Your task to perform on an android device: snooze an email in the gmail app Image 0: 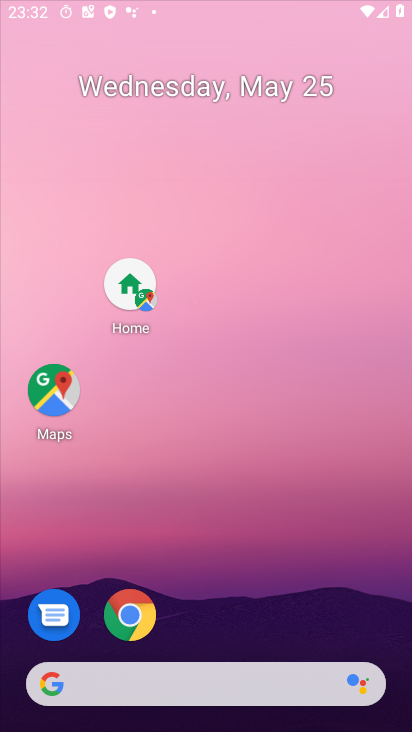
Step 0: press home button
Your task to perform on an android device: snooze an email in the gmail app Image 1: 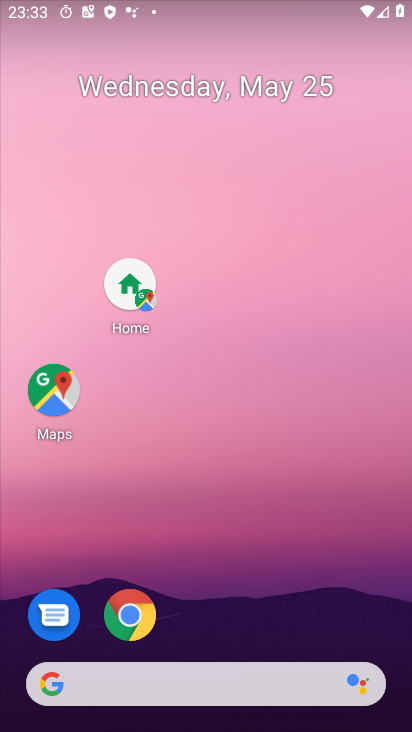
Step 1: drag from (298, 641) to (310, 280)
Your task to perform on an android device: snooze an email in the gmail app Image 2: 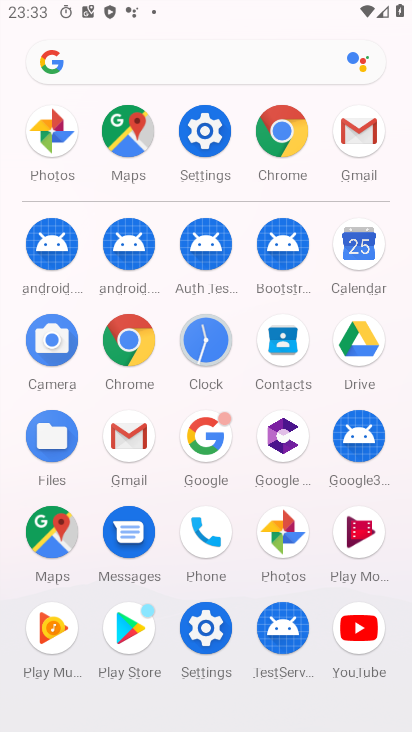
Step 2: click (363, 137)
Your task to perform on an android device: snooze an email in the gmail app Image 3: 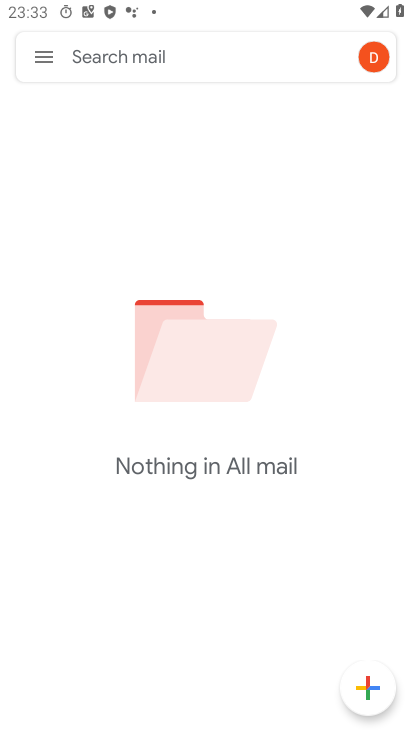
Step 3: click (48, 54)
Your task to perform on an android device: snooze an email in the gmail app Image 4: 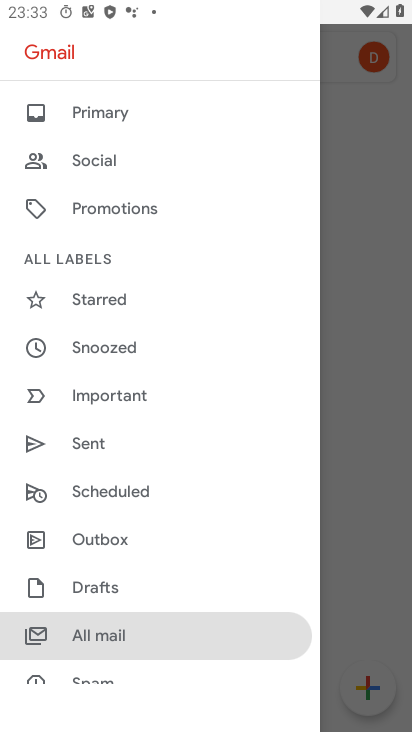
Step 4: click (92, 630)
Your task to perform on an android device: snooze an email in the gmail app Image 5: 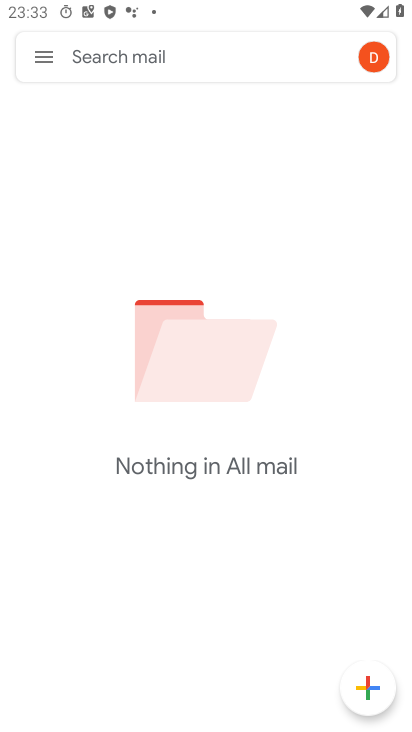
Step 5: task complete